Your task to perform on an android device: check google app version Image 0: 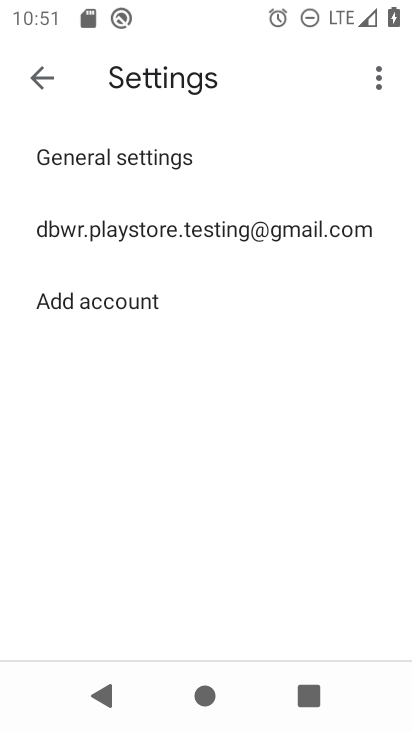
Step 0: press home button
Your task to perform on an android device: check google app version Image 1: 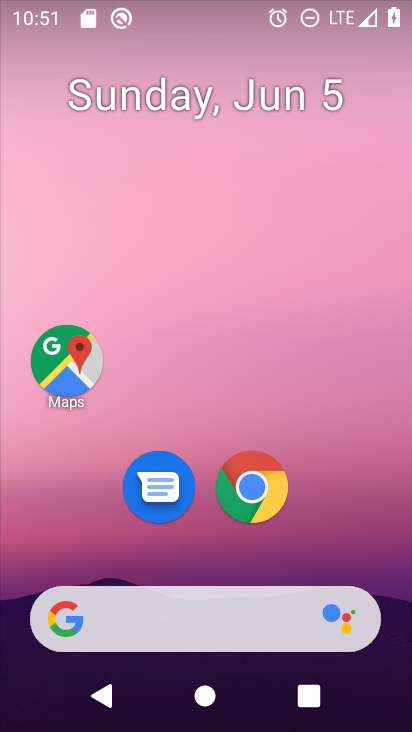
Step 1: drag from (200, 369) to (227, 173)
Your task to perform on an android device: check google app version Image 2: 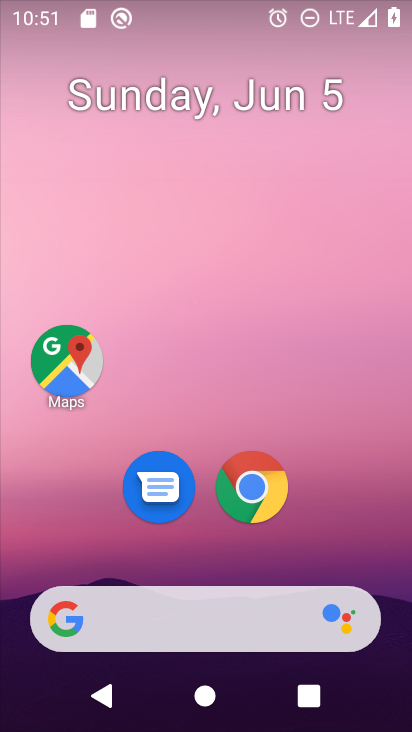
Step 2: drag from (215, 401) to (224, 236)
Your task to perform on an android device: check google app version Image 3: 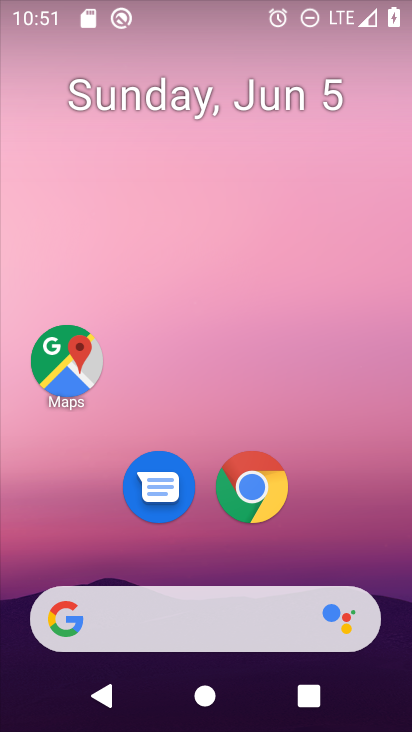
Step 3: drag from (256, 518) to (250, 133)
Your task to perform on an android device: check google app version Image 4: 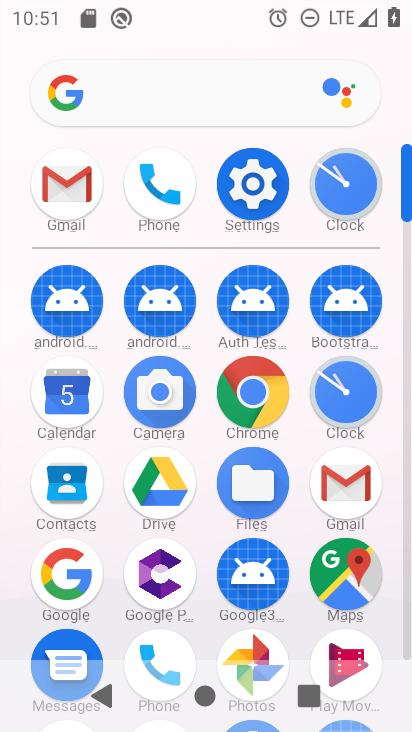
Step 4: click (75, 565)
Your task to perform on an android device: check google app version Image 5: 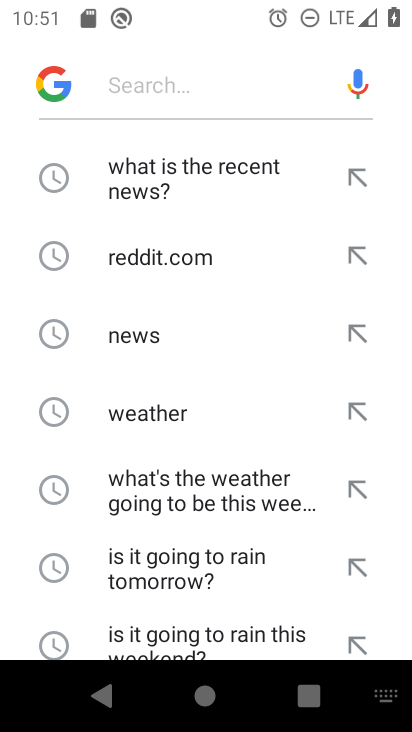
Step 5: click (56, 77)
Your task to perform on an android device: check google app version Image 6: 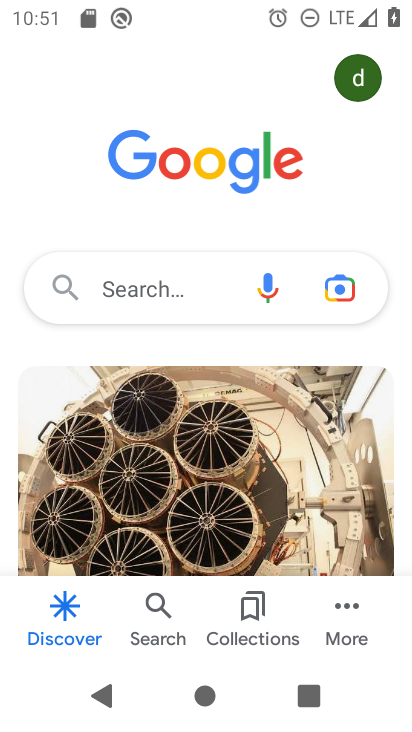
Step 6: click (343, 613)
Your task to perform on an android device: check google app version Image 7: 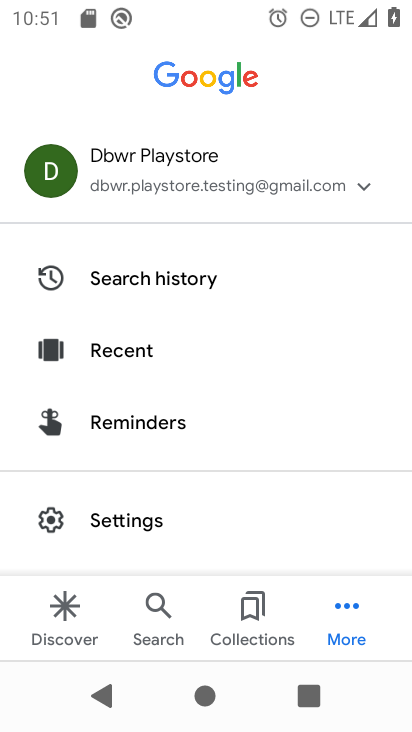
Step 7: click (172, 514)
Your task to perform on an android device: check google app version Image 8: 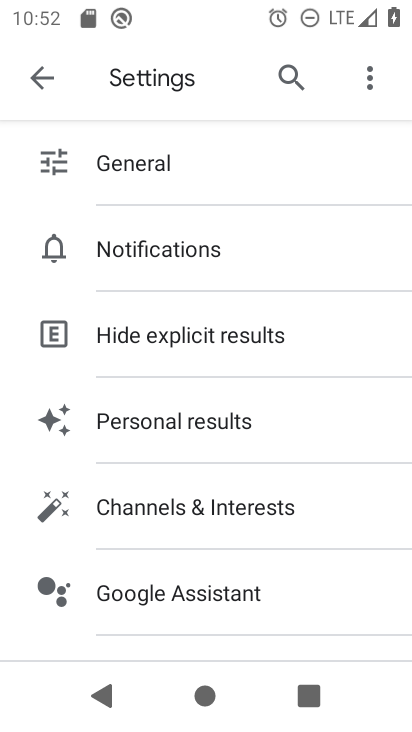
Step 8: drag from (242, 610) to (239, 207)
Your task to perform on an android device: check google app version Image 9: 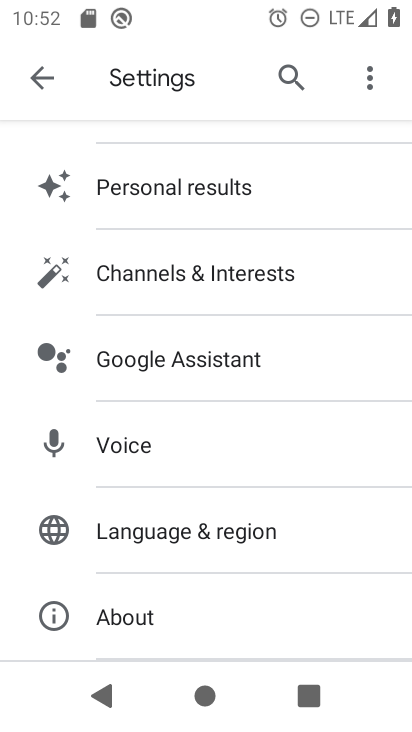
Step 9: click (154, 623)
Your task to perform on an android device: check google app version Image 10: 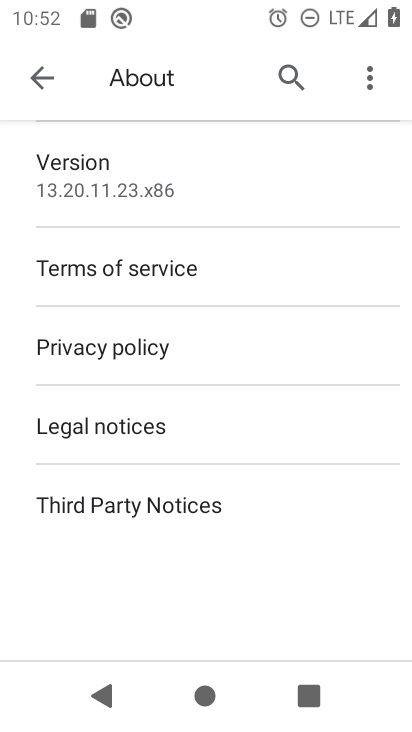
Step 10: task complete